Your task to perform on an android device: Open maps Image 0: 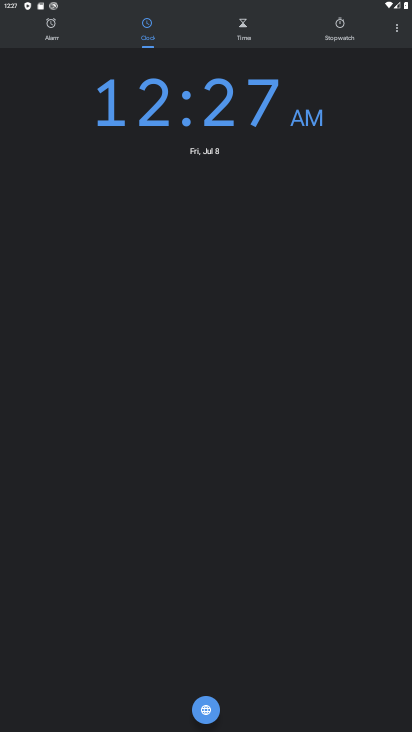
Step 0: press home button
Your task to perform on an android device: Open maps Image 1: 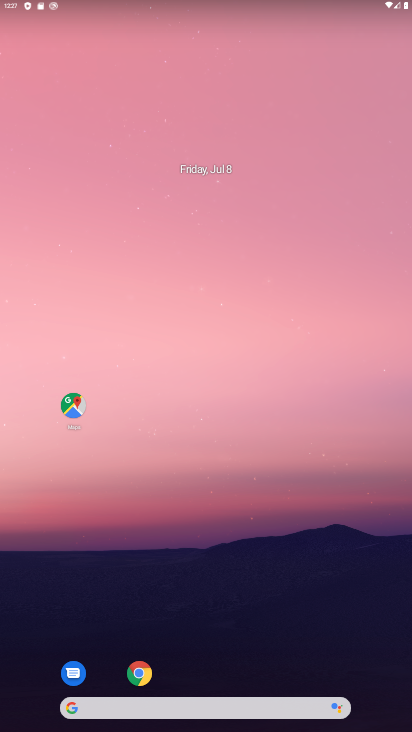
Step 1: click (67, 402)
Your task to perform on an android device: Open maps Image 2: 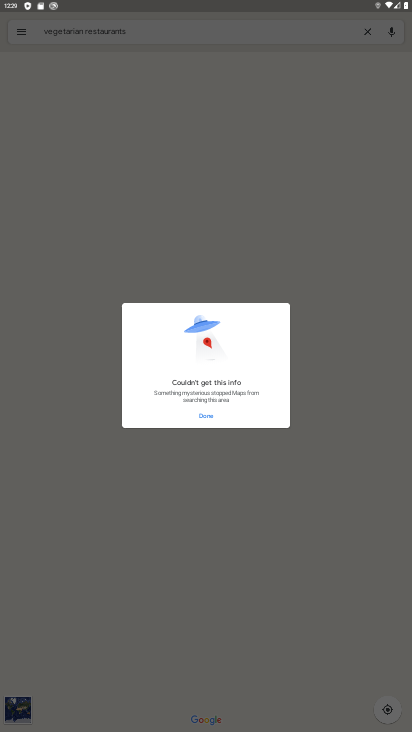
Step 2: task complete